Your task to perform on an android device: snooze an email in the gmail app Image 0: 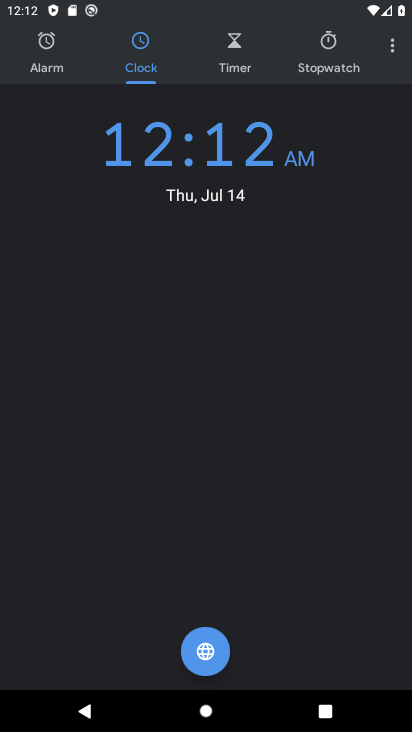
Step 0: press home button
Your task to perform on an android device: snooze an email in the gmail app Image 1: 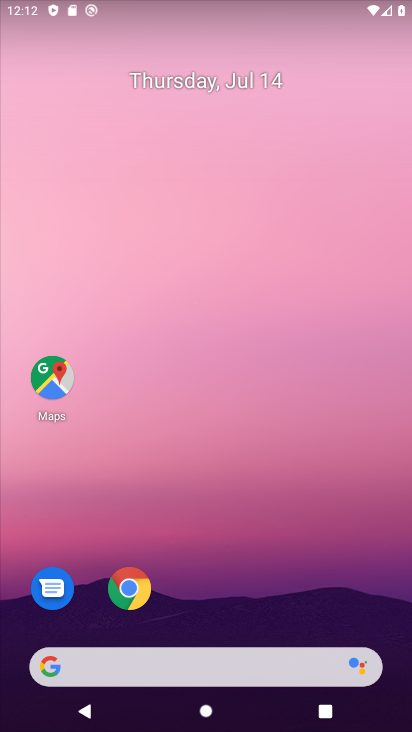
Step 1: drag from (215, 575) to (189, 154)
Your task to perform on an android device: snooze an email in the gmail app Image 2: 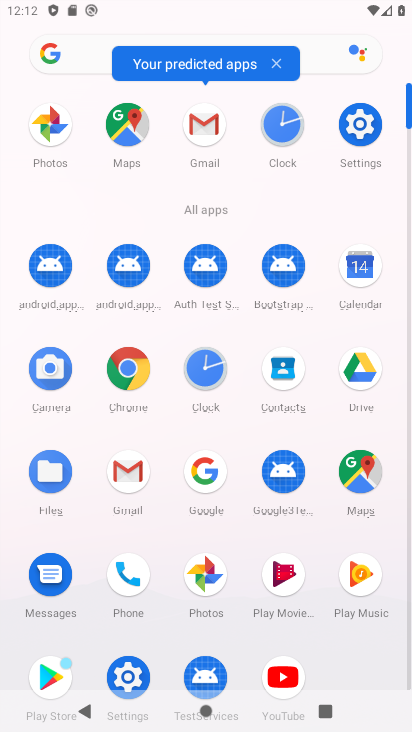
Step 2: click (207, 125)
Your task to perform on an android device: snooze an email in the gmail app Image 3: 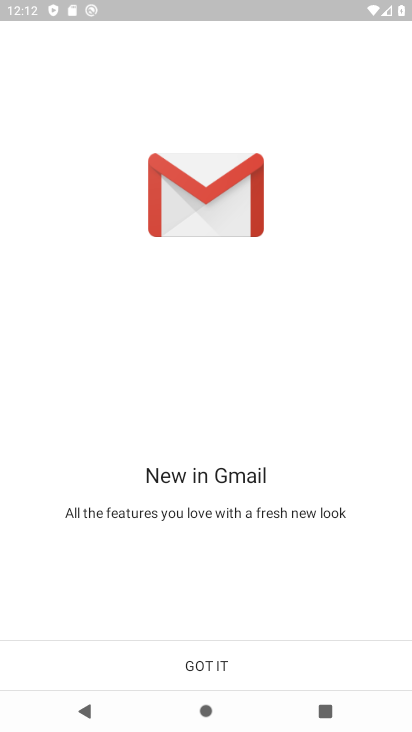
Step 3: click (206, 652)
Your task to perform on an android device: snooze an email in the gmail app Image 4: 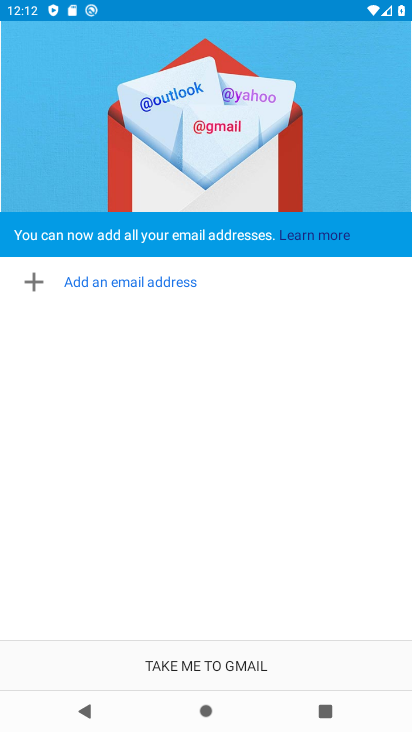
Step 4: click (219, 661)
Your task to perform on an android device: snooze an email in the gmail app Image 5: 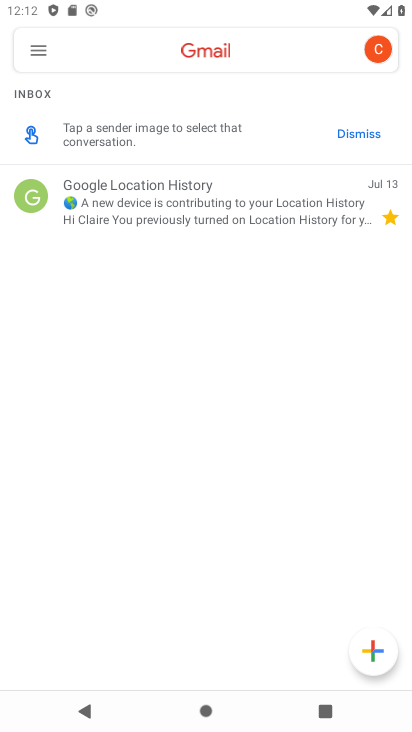
Step 5: click (38, 54)
Your task to perform on an android device: snooze an email in the gmail app Image 6: 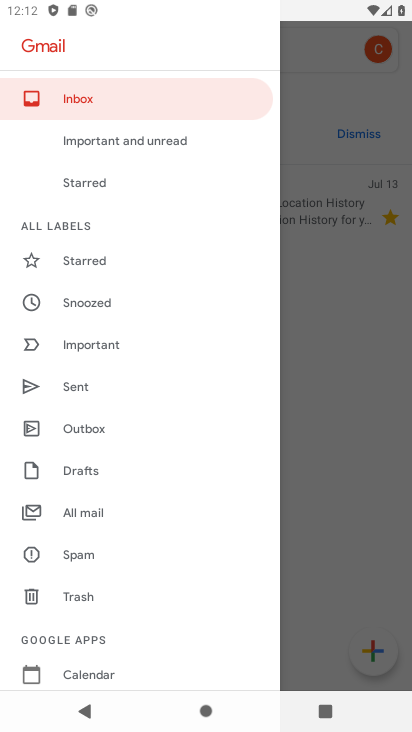
Step 6: click (107, 512)
Your task to perform on an android device: snooze an email in the gmail app Image 7: 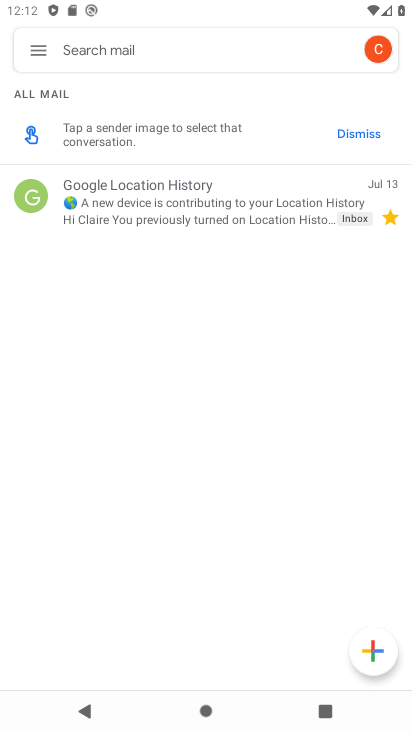
Step 7: click (207, 197)
Your task to perform on an android device: snooze an email in the gmail app Image 8: 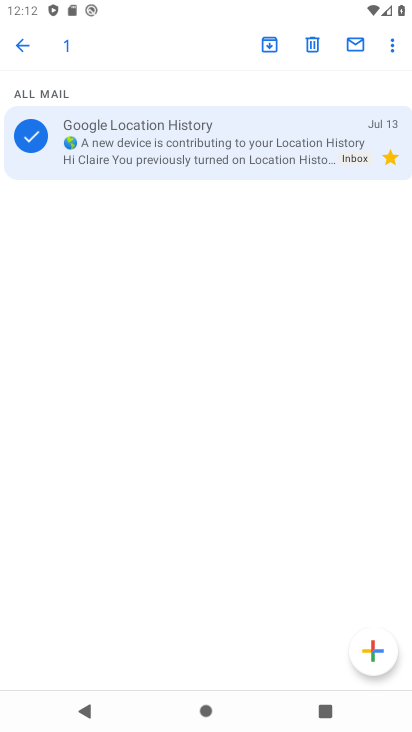
Step 8: click (394, 47)
Your task to perform on an android device: snooze an email in the gmail app Image 9: 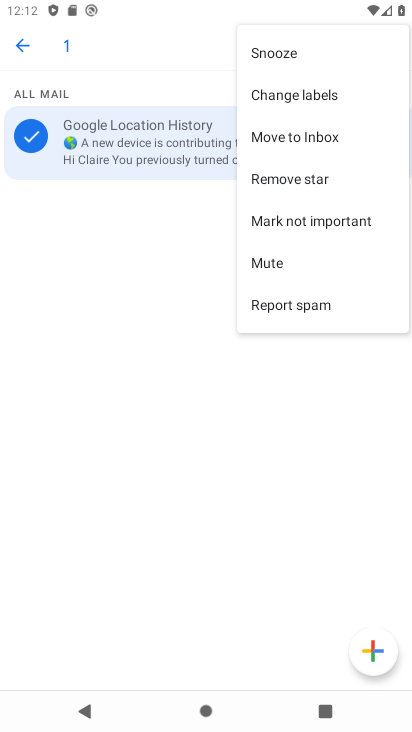
Step 9: click (320, 56)
Your task to perform on an android device: snooze an email in the gmail app Image 10: 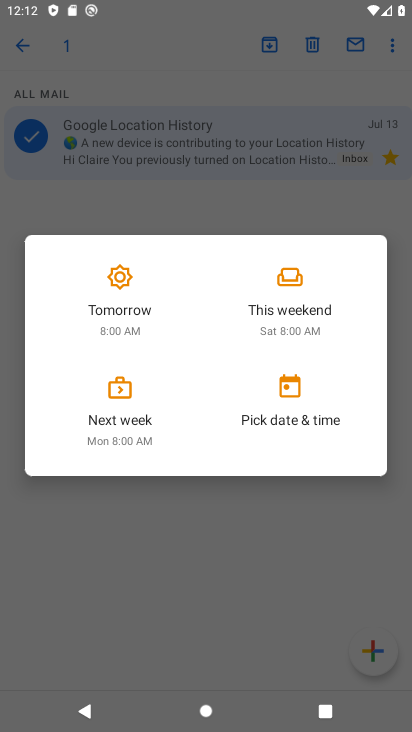
Step 10: click (126, 295)
Your task to perform on an android device: snooze an email in the gmail app Image 11: 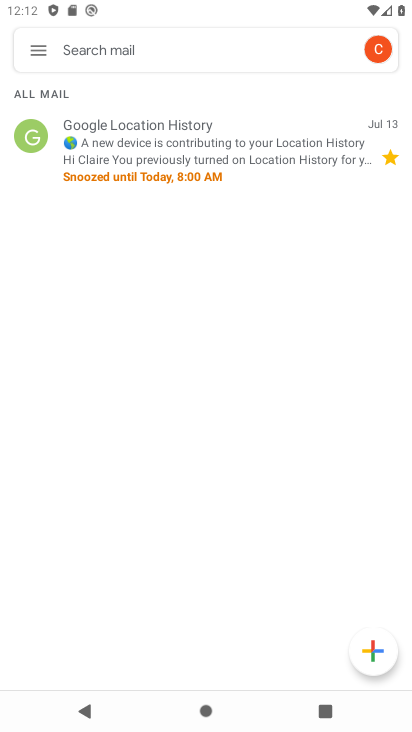
Step 11: task complete